Your task to perform on an android device: turn off priority inbox in the gmail app Image 0: 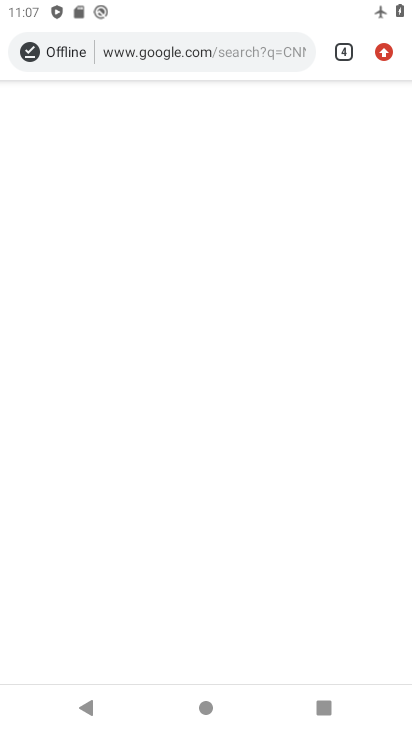
Step 0: press home button
Your task to perform on an android device: turn off priority inbox in the gmail app Image 1: 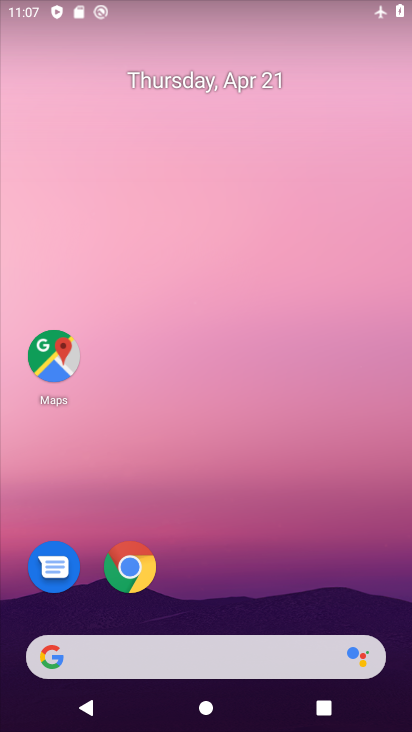
Step 1: drag from (193, 612) to (268, 147)
Your task to perform on an android device: turn off priority inbox in the gmail app Image 2: 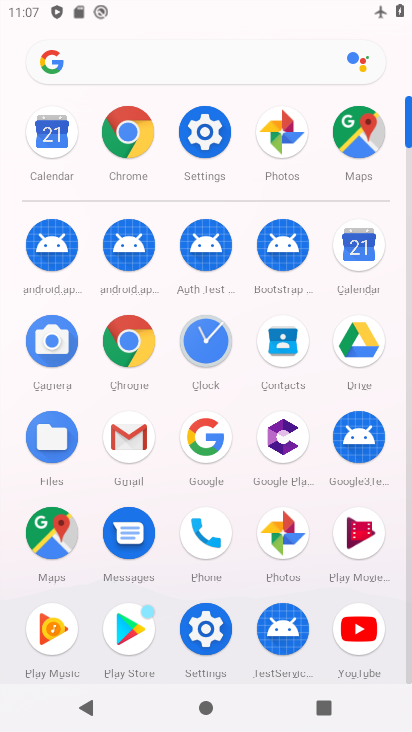
Step 2: click (126, 444)
Your task to perform on an android device: turn off priority inbox in the gmail app Image 3: 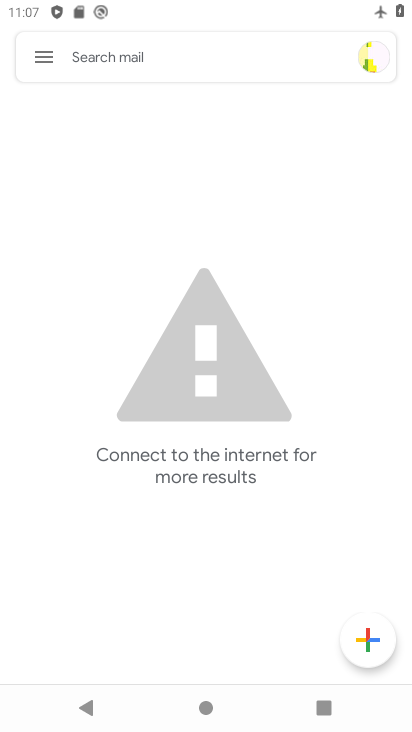
Step 3: click (46, 61)
Your task to perform on an android device: turn off priority inbox in the gmail app Image 4: 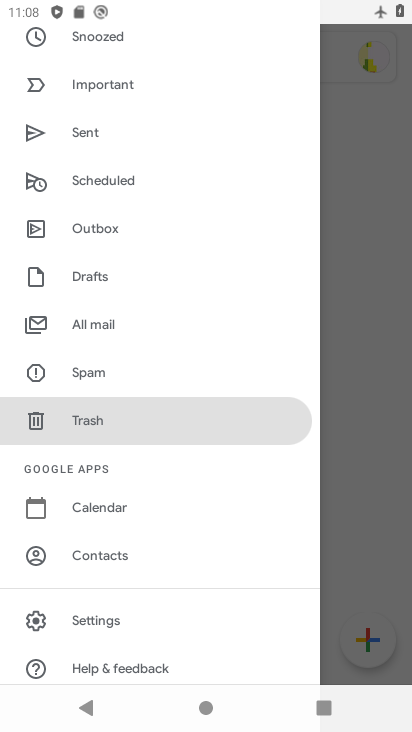
Step 4: click (96, 622)
Your task to perform on an android device: turn off priority inbox in the gmail app Image 5: 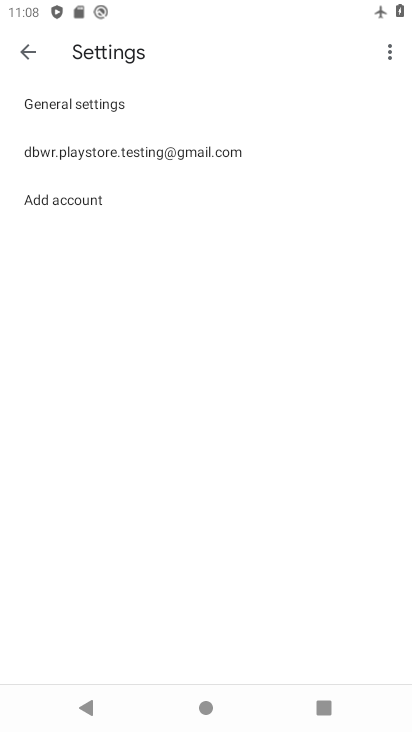
Step 5: click (88, 144)
Your task to perform on an android device: turn off priority inbox in the gmail app Image 6: 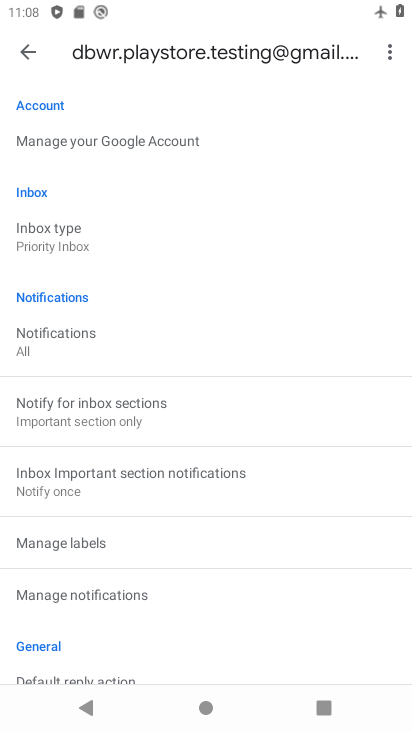
Step 6: click (53, 247)
Your task to perform on an android device: turn off priority inbox in the gmail app Image 7: 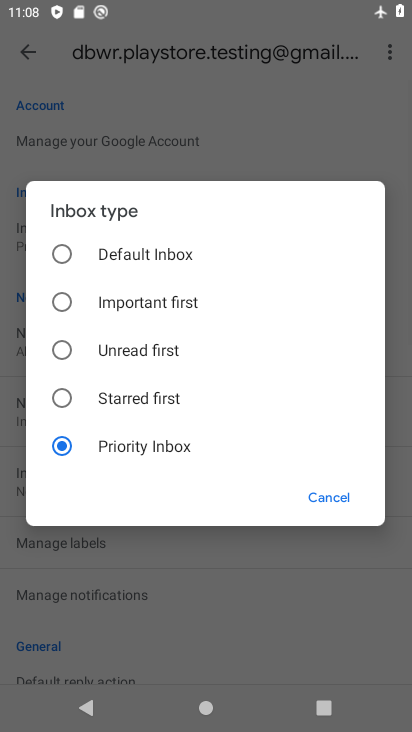
Step 7: click (60, 252)
Your task to perform on an android device: turn off priority inbox in the gmail app Image 8: 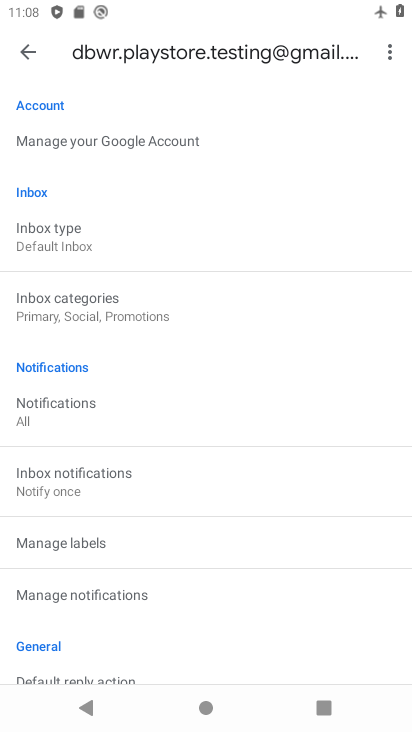
Step 8: task complete